Your task to perform on an android device: change alarm snooze length Image 0: 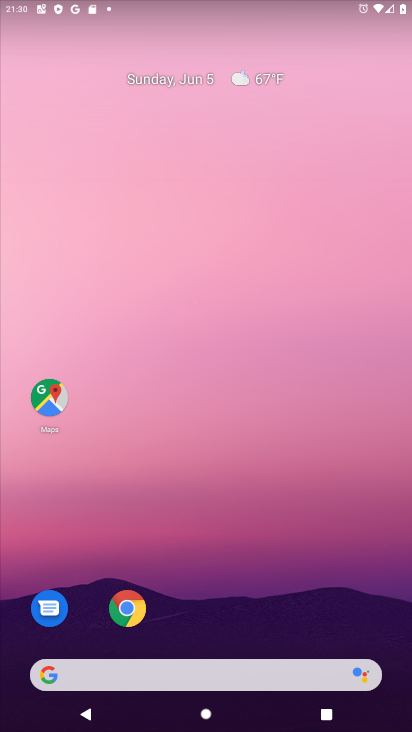
Step 0: drag from (74, 619) to (299, 147)
Your task to perform on an android device: change alarm snooze length Image 1: 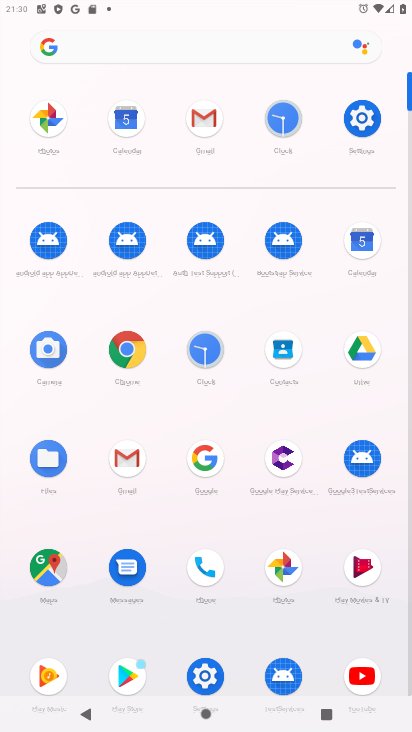
Step 1: click (198, 339)
Your task to perform on an android device: change alarm snooze length Image 2: 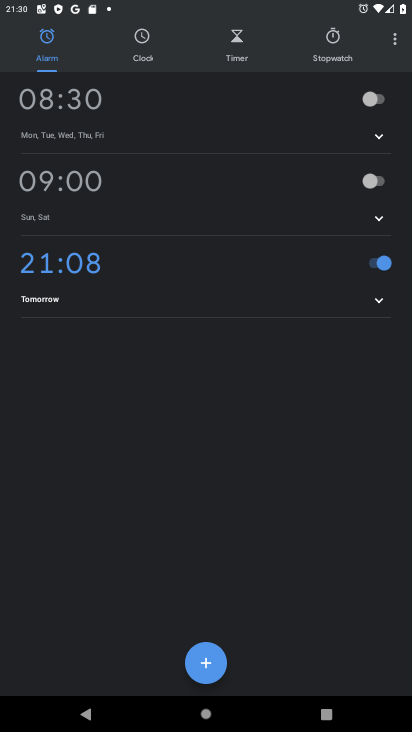
Step 2: click (394, 39)
Your task to perform on an android device: change alarm snooze length Image 3: 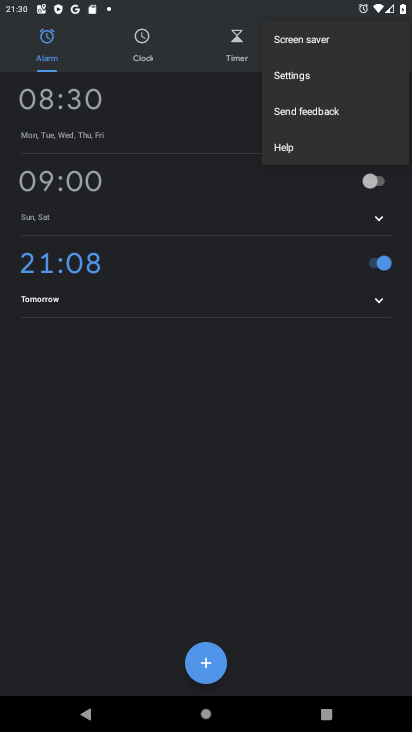
Step 3: click (291, 80)
Your task to perform on an android device: change alarm snooze length Image 4: 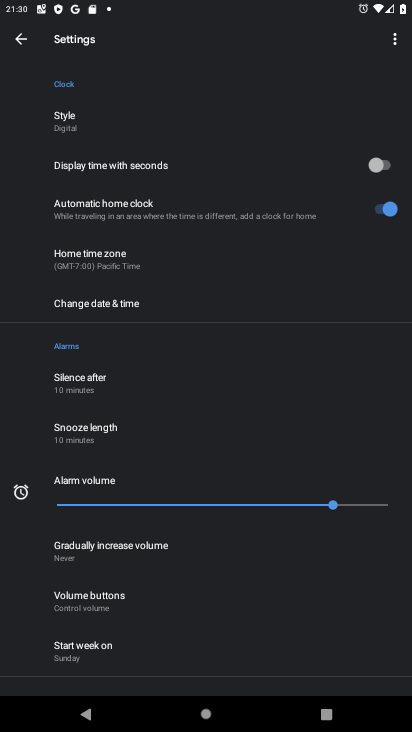
Step 4: click (58, 435)
Your task to perform on an android device: change alarm snooze length Image 5: 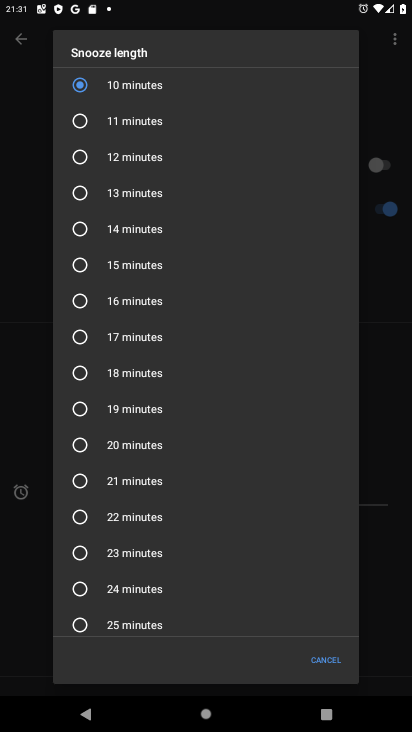
Step 5: click (87, 128)
Your task to perform on an android device: change alarm snooze length Image 6: 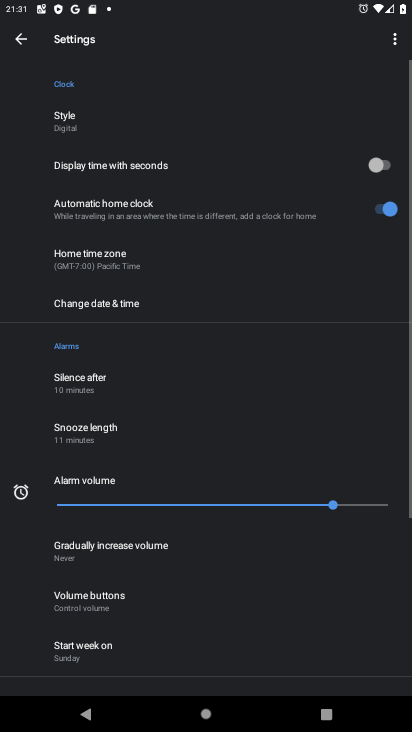
Step 6: task complete